Your task to perform on an android device: Go to Yahoo.com Image 0: 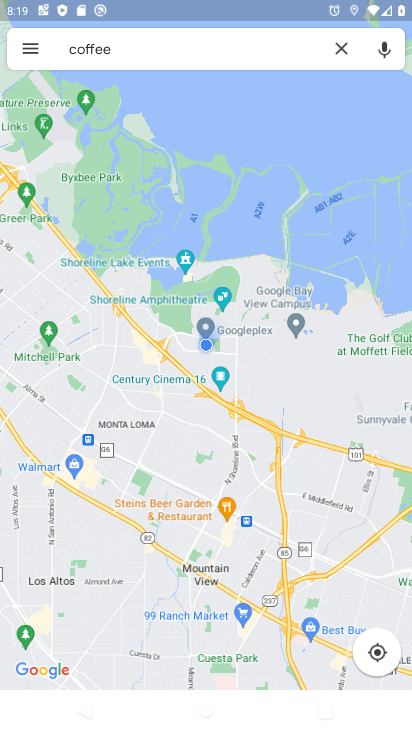
Step 0: press home button
Your task to perform on an android device: Go to Yahoo.com Image 1: 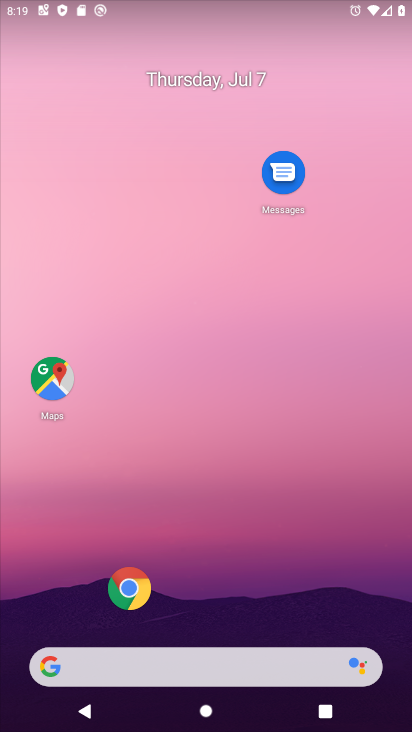
Step 1: click (124, 675)
Your task to perform on an android device: Go to Yahoo.com Image 2: 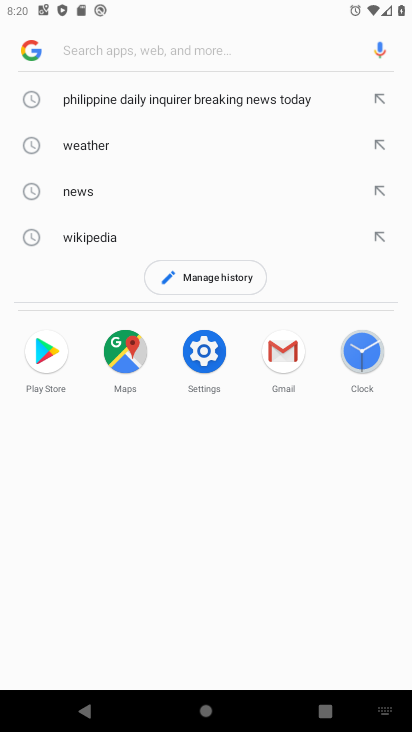
Step 2: type "Yahoo.com  "
Your task to perform on an android device: Go to Yahoo.com Image 3: 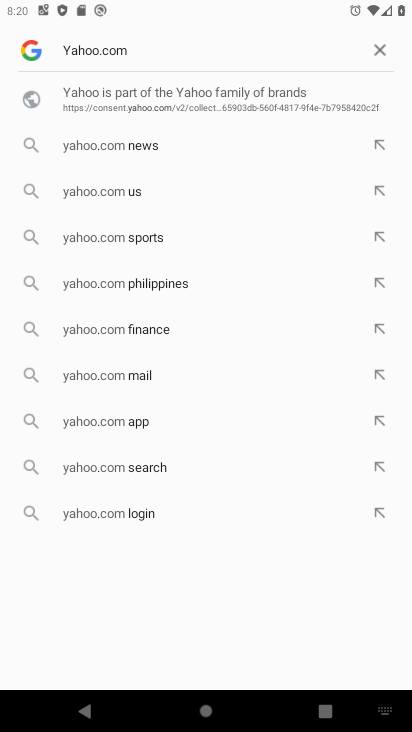
Step 3: type ""
Your task to perform on an android device: Go to Yahoo.com Image 4: 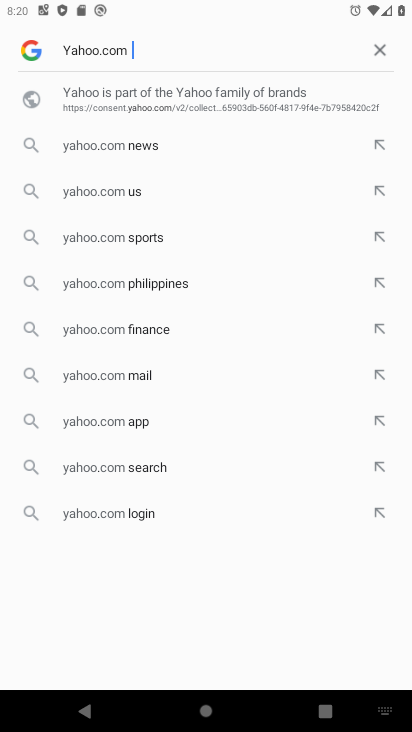
Step 4: type ""
Your task to perform on an android device: Go to Yahoo.com Image 5: 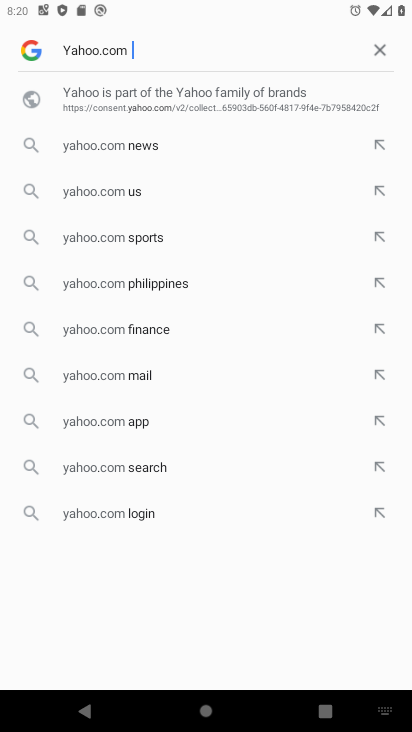
Step 5: type ""
Your task to perform on an android device: Go to Yahoo.com Image 6: 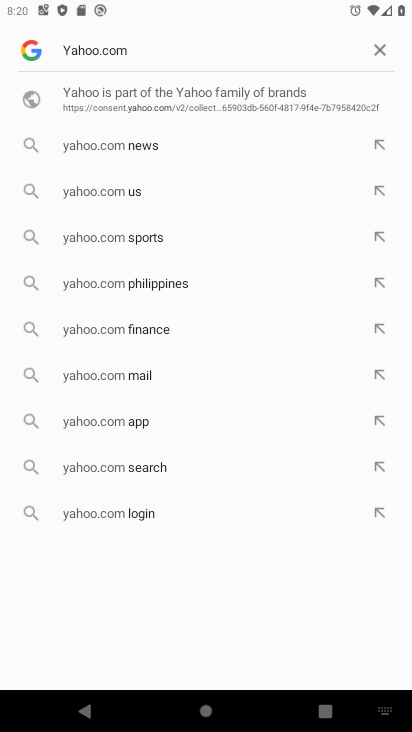
Step 6: type ""
Your task to perform on an android device: Go to Yahoo.com Image 7: 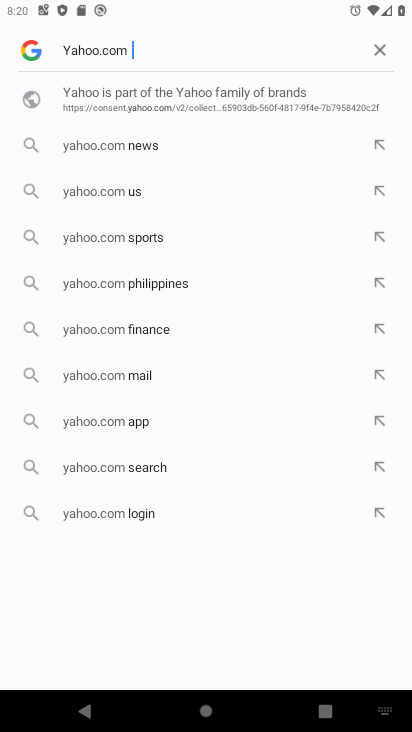
Step 7: type ""
Your task to perform on an android device: Go to Yahoo.com Image 8: 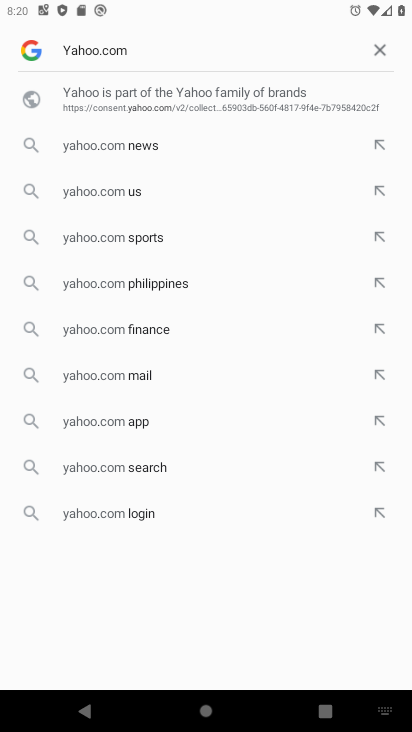
Step 8: type ""
Your task to perform on an android device: Go to Yahoo.com Image 9: 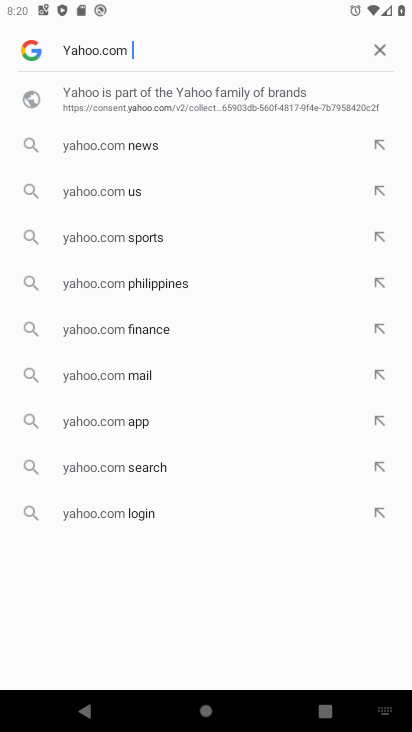
Step 9: type ""
Your task to perform on an android device: Go to Yahoo.com Image 10: 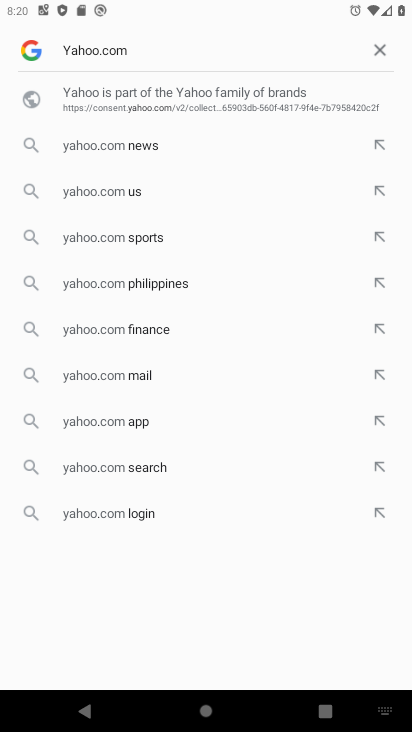
Step 10: type ""
Your task to perform on an android device: Go to Yahoo.com Image 11: 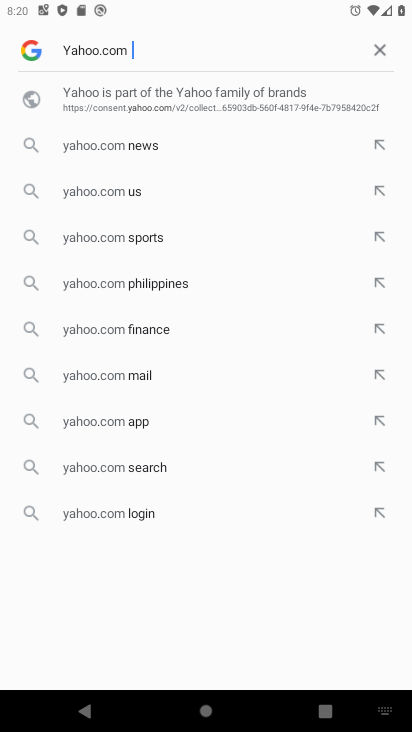
Step 11: click (126, 92)
Your task to perform on an android device: Go to Yahoo.com Image 12: 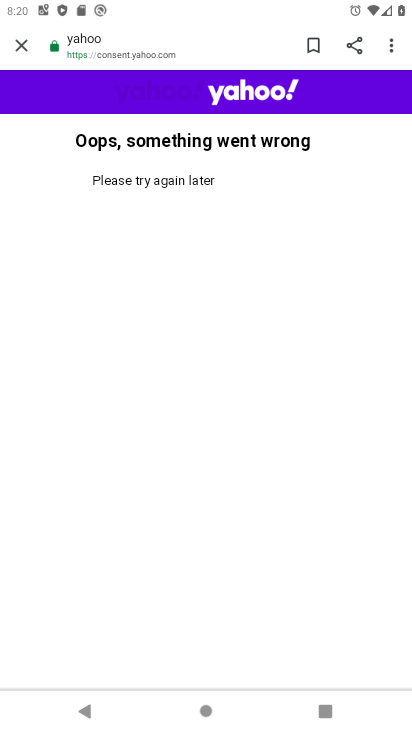
Step 12: task complete